Your task to perform on an android device: read, delete, or share a saved page in the chrome app Image 0: 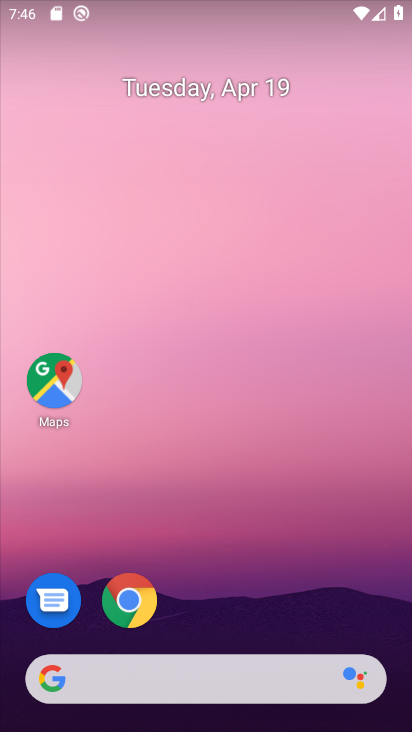
Step 0: drag from (364, 578) to (360, 83)
Your task to perform on an android device: read, delete, or share a saved page in the chrome app Image 1: 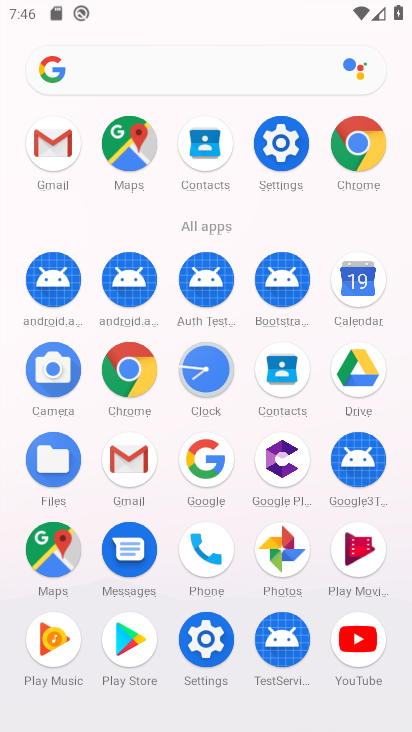
Step 1: click (360, 150)
Your task to perform on an android device: read, delete, or share a saved page in the chrome app Image 2: 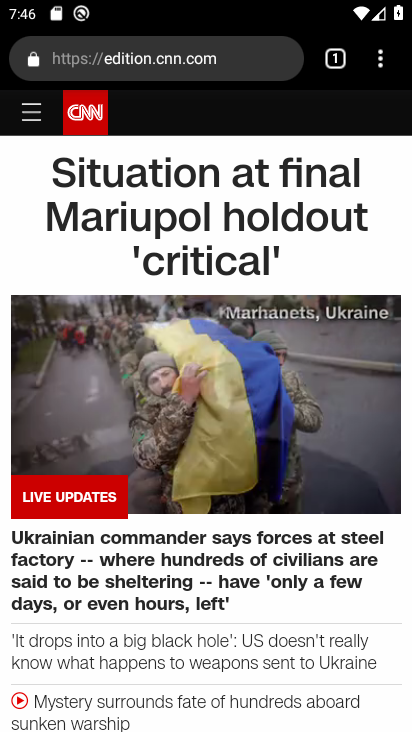
Step 2: click (381, 59)
Your task to perform on an android device: read, delete, or share a saved page in the chrome app Image 3: 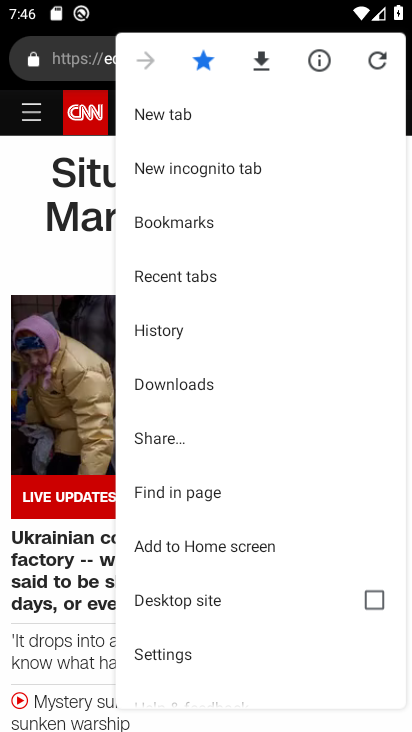
Step 3: click (212, 385)
Your task to perform on an android device: read, delete, or share a saved page in the chrome app Image 4: 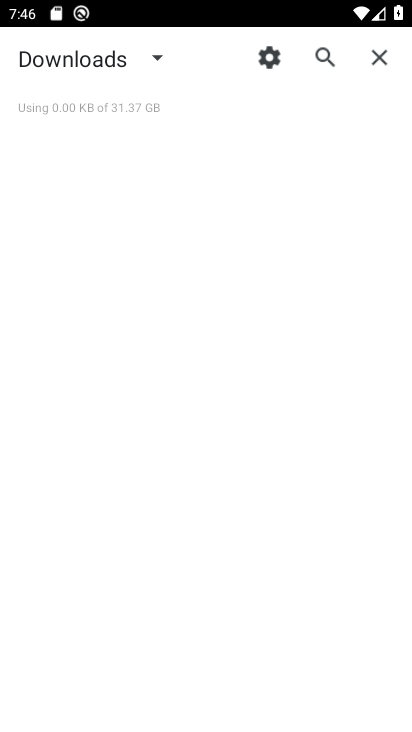
Step 4: click (158, 59)
Your task to perform on an android device: read, delete, or share a saved page in the chrome app Image 5: 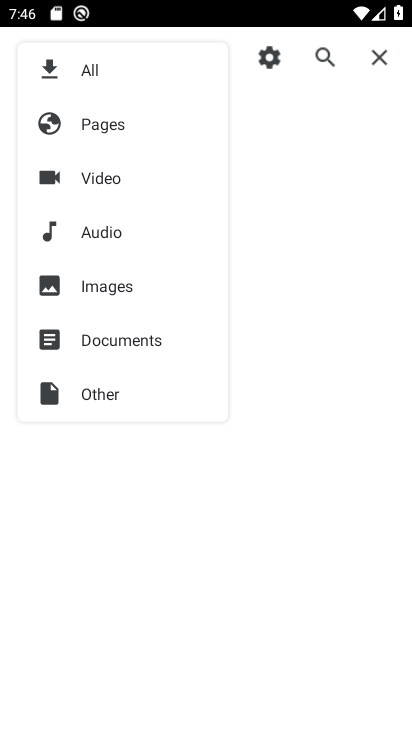
Step 5: click (110, 127)
Your task to perform on an android device: read, delete, or share a saved page in the chrome app Image 6: 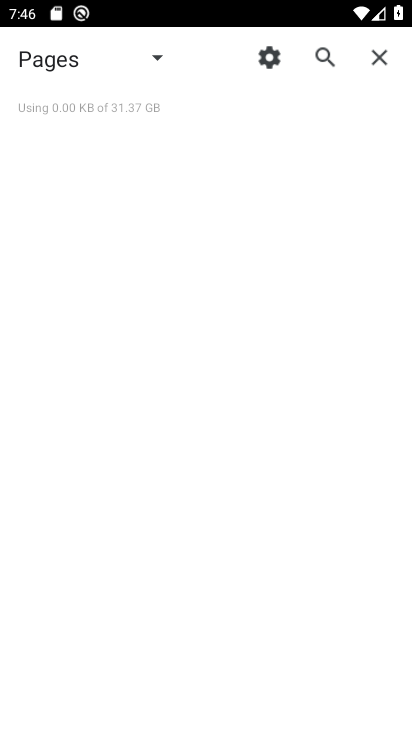
Step 6: task complete